Your task to perform on an android device: set the timer Image 0: 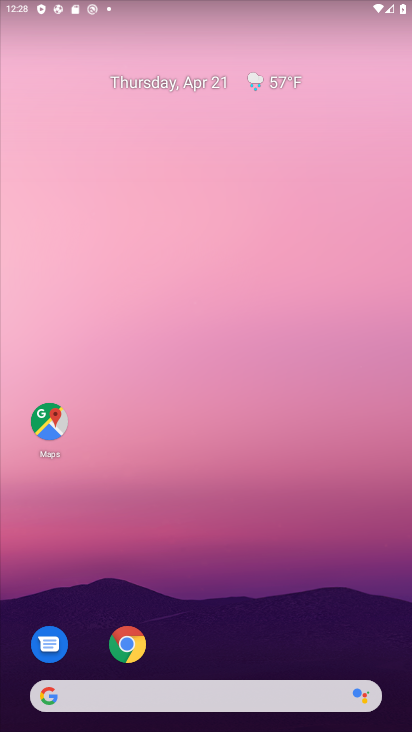
Step 0: drag from (205, 669) to (130, 102)
Your task to perform on an android device: set the timer Image 1: 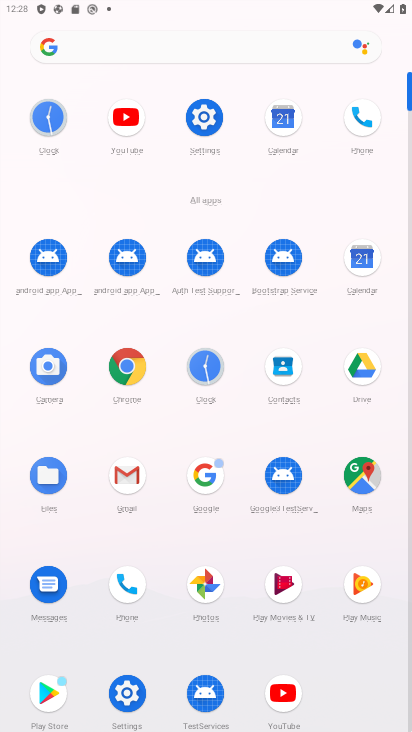
Step 1: click (203, 358)
Your task to perform on an android device: set the timer Image 2: 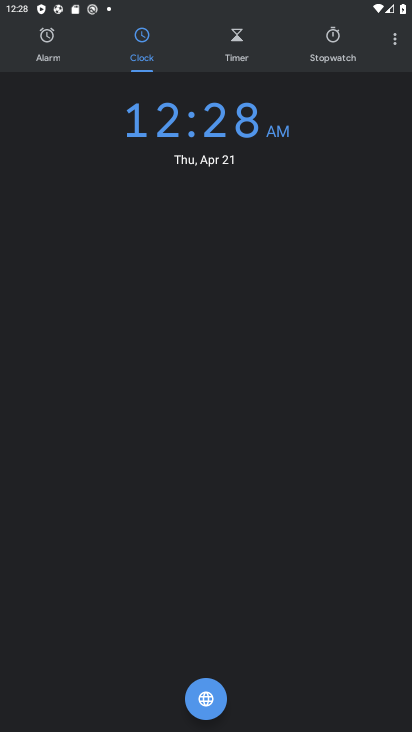
Step 2: click (241, 50)
Your task to perform on an android device: set the timer Image 3: 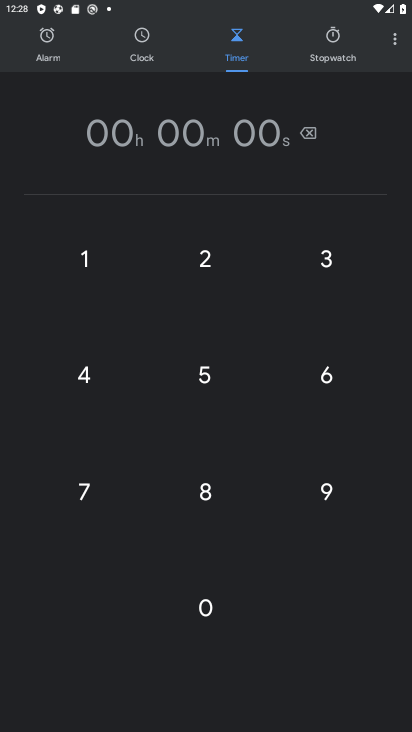
Step 3: click (206, 255)
Your task to perform on an android device: set the timer Image 4: 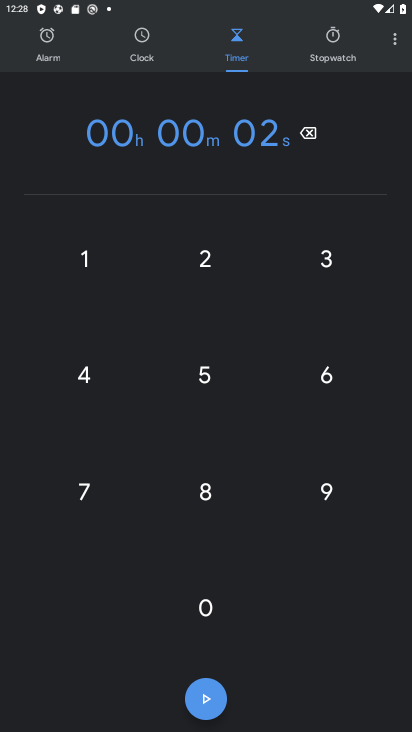
Step 4: click (201, 358)
Your task to perform on an android device: set the timer Image 5: 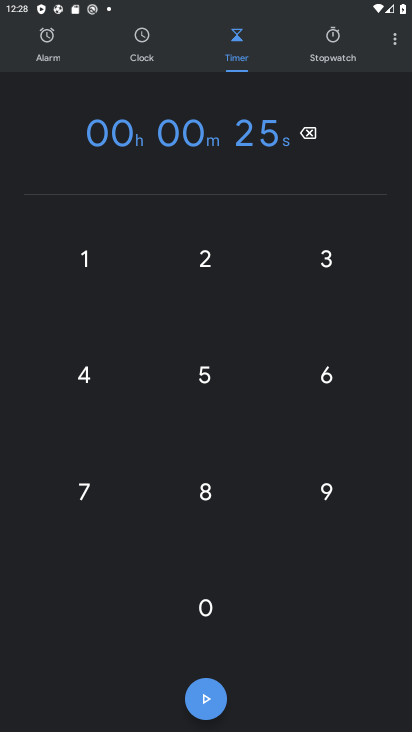
Step 5: click (193, 709)
Your task to perform on an android device: set the timer Image 6: 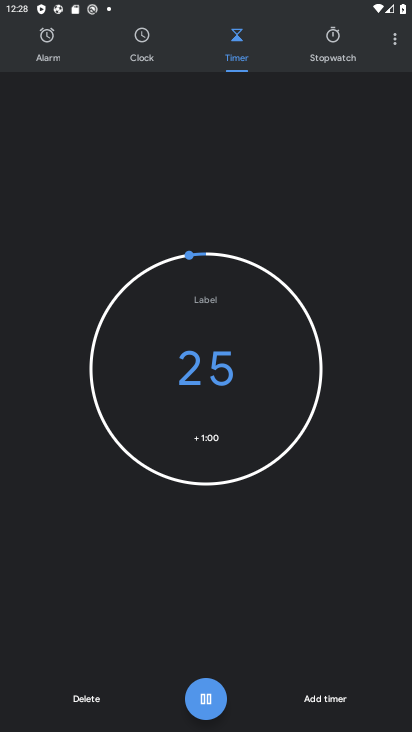
Step 6: task complete